Your task to perform on an android device: Open eBay Image 0: 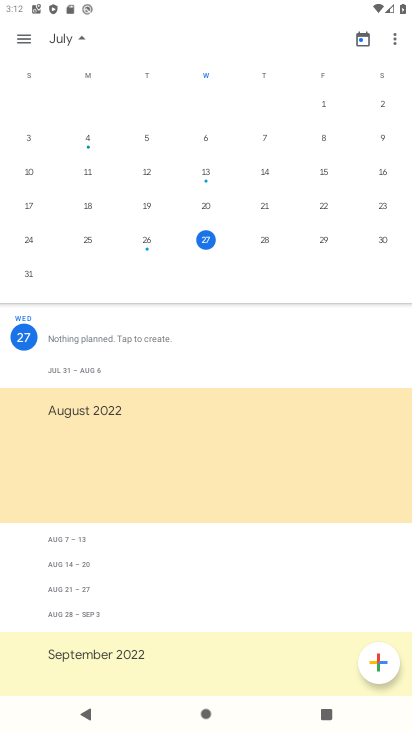
Step 0: press home button
Your task to perform on an android device: Open eBay Image 1: 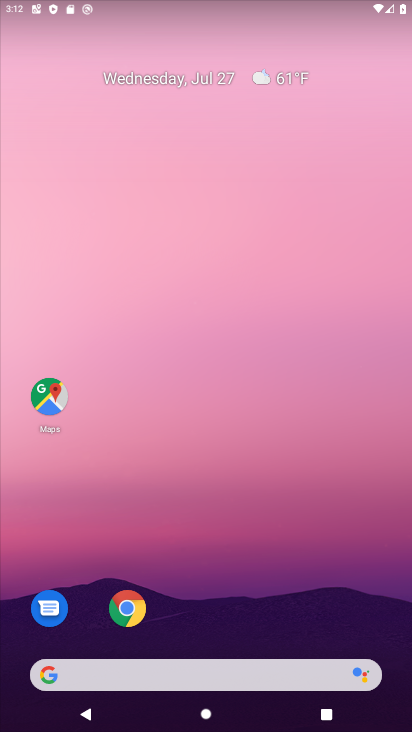
Step 1: click (131, 608)
Your task to perform on an android device: Open eBay Image 2: 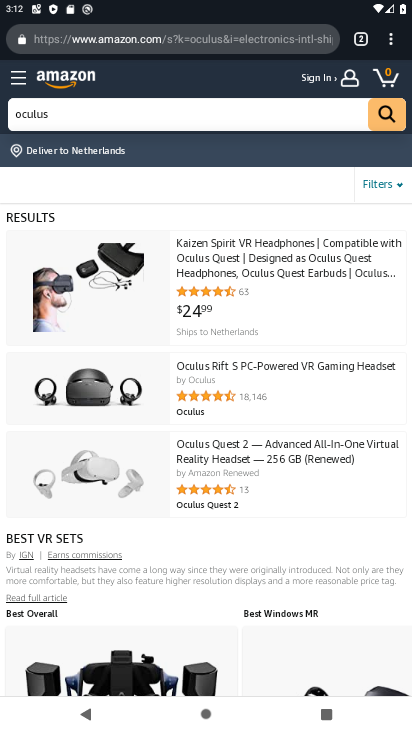
Step 2: click (182, 33)
Your task to perform on an android device: Open eBay Image 3: 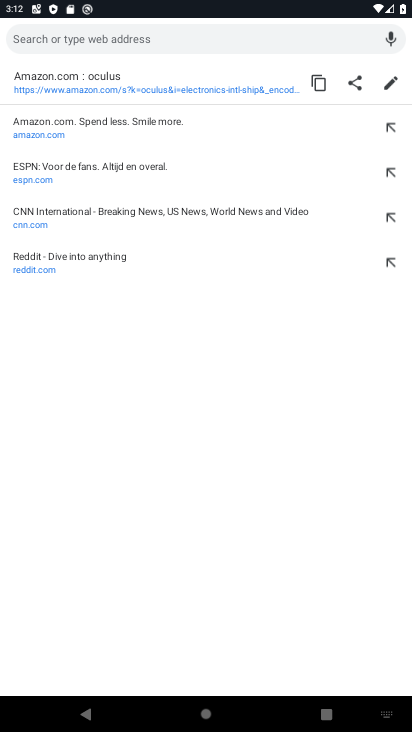
Step 3: type "ebay"
Your task to perform on an android device: Open eBay Image 4: 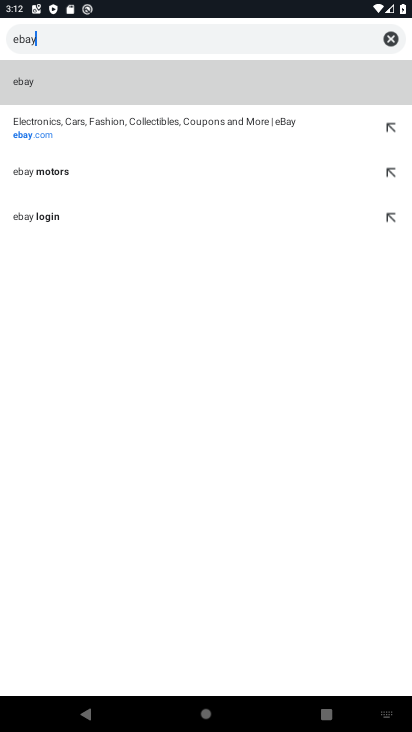
Step 4: click (209, 75)
Your task to perform on an android device: Open eBay Image 5: 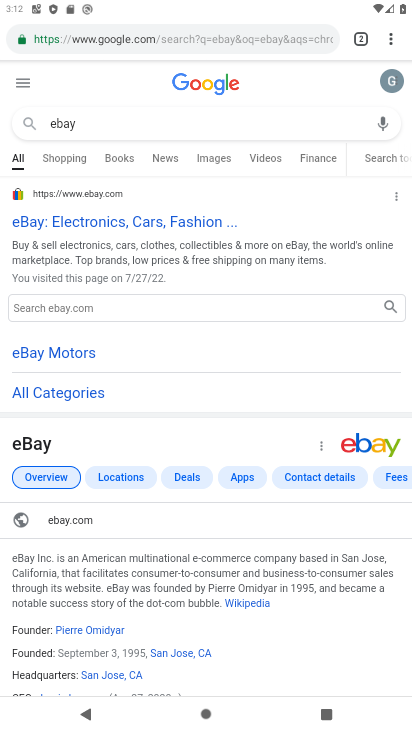
Step 5: click (42, 223)
Your task to perform on an android device: Open eBay Image 6: 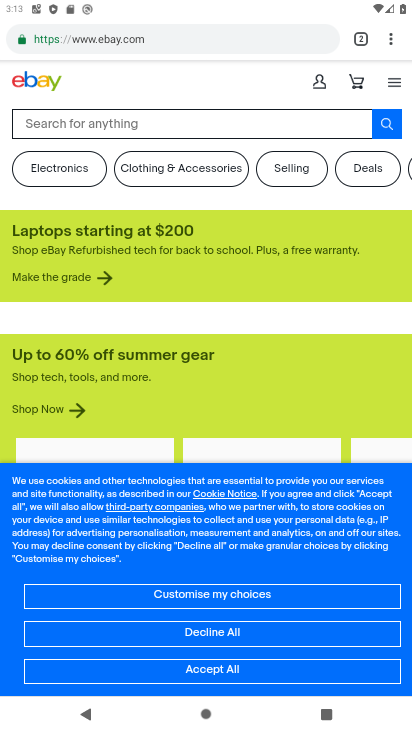
Step 6: task complete